Your task to perform on an android device: Go to Wikipedia Image 0: 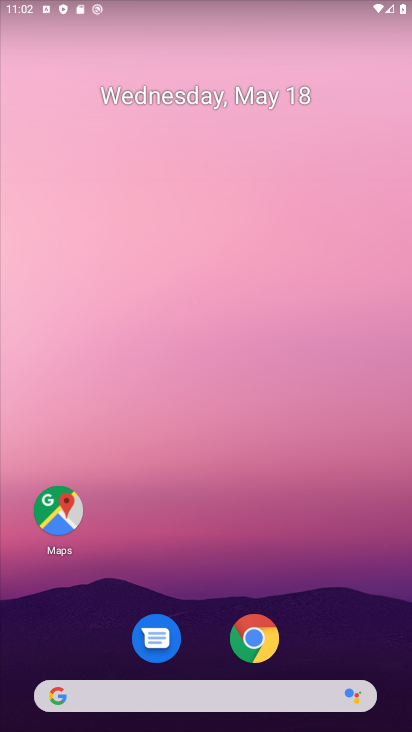
Step 0: drag from (347, 635) to (314, 72)
Your task to perform on an android device: Go to Wikipedia Image 1: 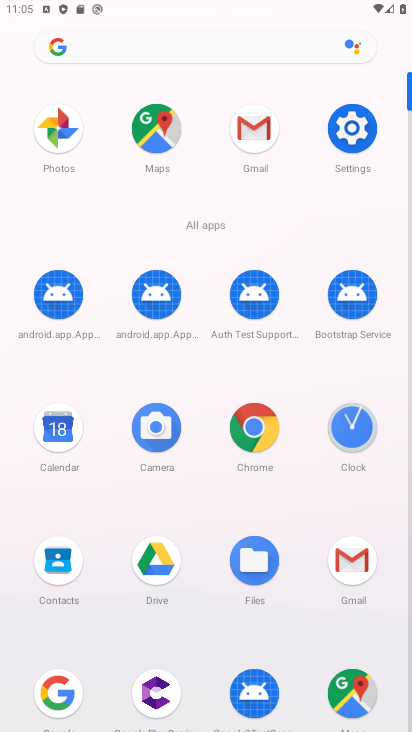
Step 1: click (264, 443)
Your task to perform on an android device: Go to Wikipedia Image 2: 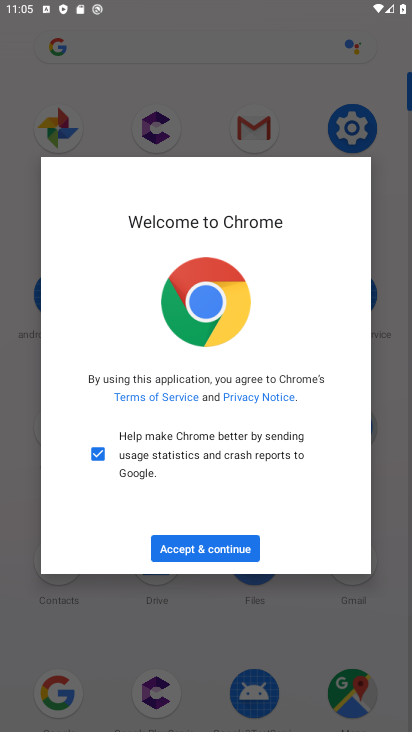
Step 2: click (251, 552)
Your task to perform on an android device: Go to Wikipedia Image 3: 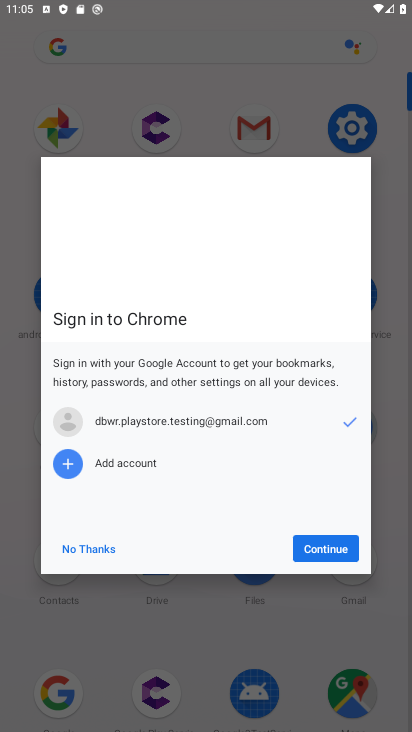
Step 3: click (344, 555)
Your task to perform on an android device: Go to Wikipedia Image 4: 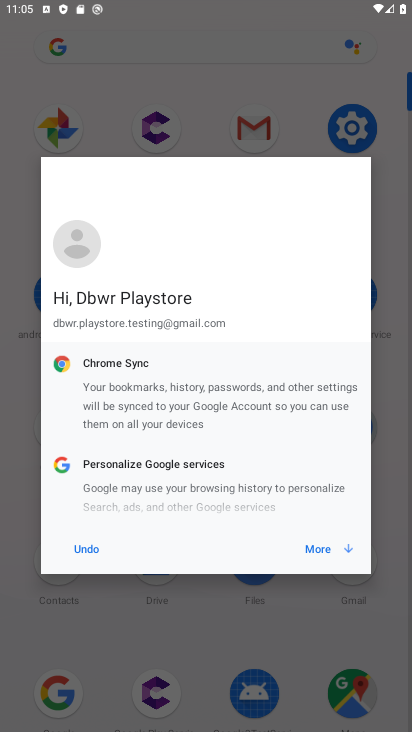
Step 4: click (331, 555)
Your task to perform on an android device: Go to Wikipedia Image 5: 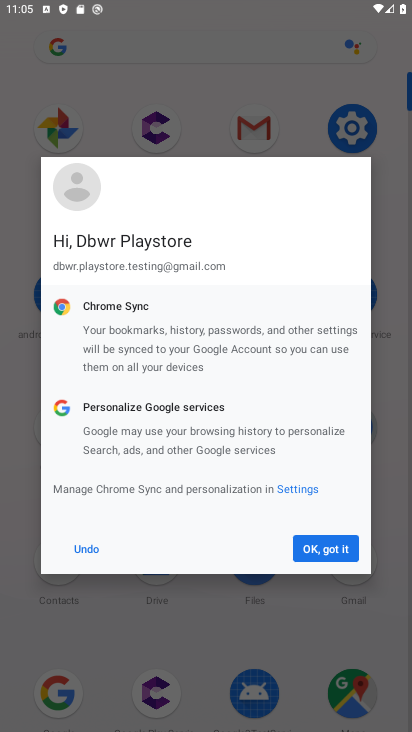
Step 5: click (331, 555)
Your task to perform on an android device: Go to Wikipedia Image 6: 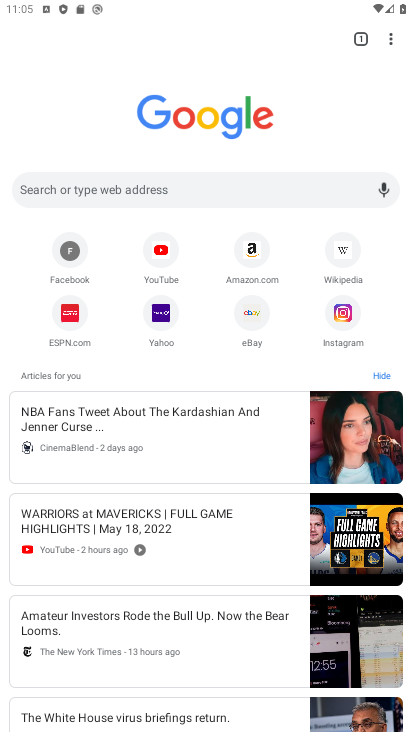
Step 6: click (338, 250)
Your task to perform on an android device: Go to Wikipedia Image 7: 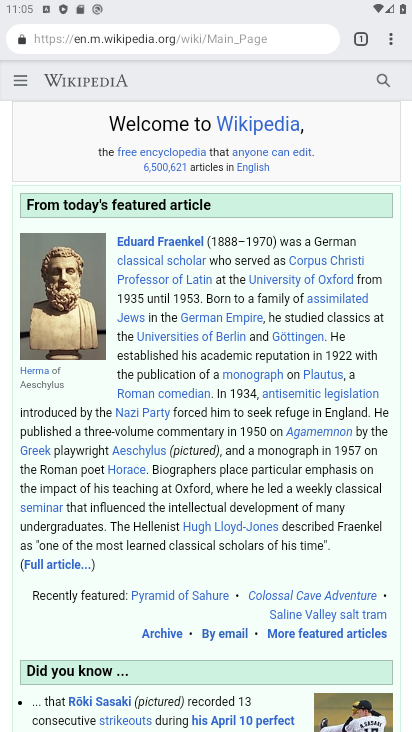
Step 7: task complete